Your task to perform on an android device: Search for Italian restaurants on Maps Image 0: 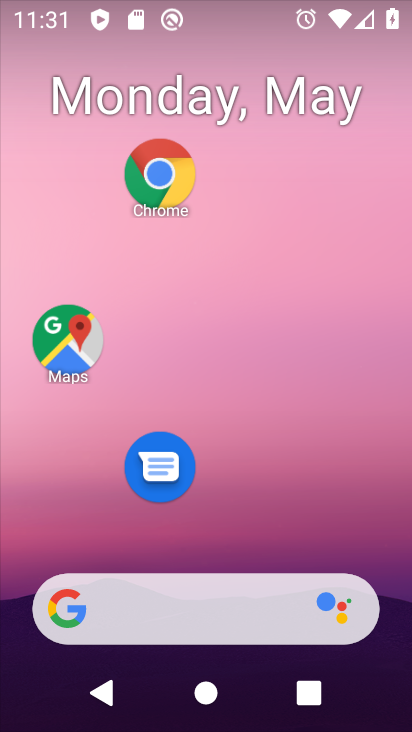
Step 0: click (56, 366)
Your task to perform on an android device: Search for Italian restaurants on Maps Image 1: 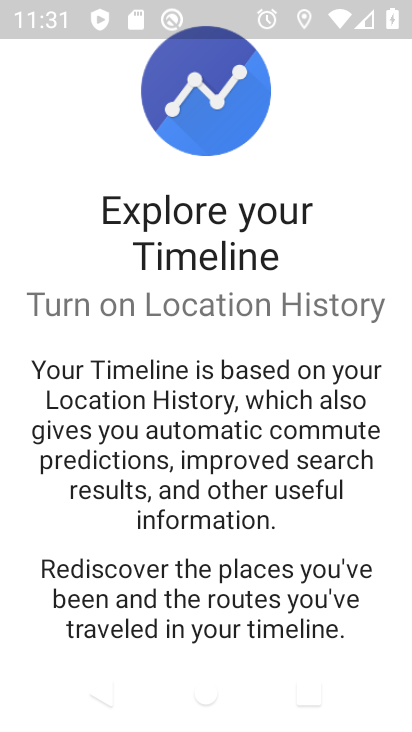
Step 1: press back button
Your task to perform on an android device: Search for Italian restaurants on Maps Image 2: 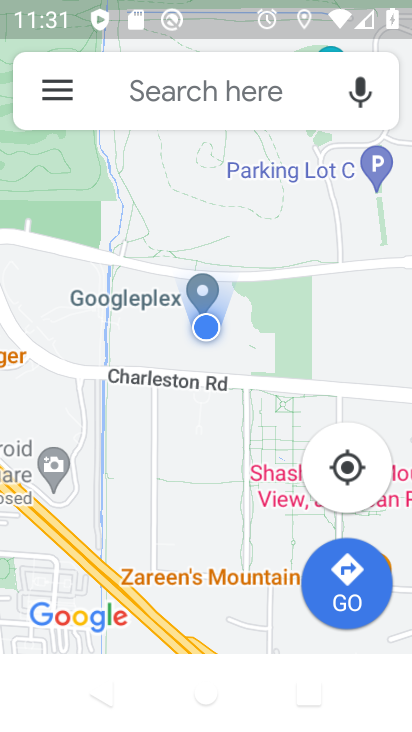
Step 2: click (262, 97)
Your task to perform on an android device: Search for Italian restaurants on Maps Image 3: 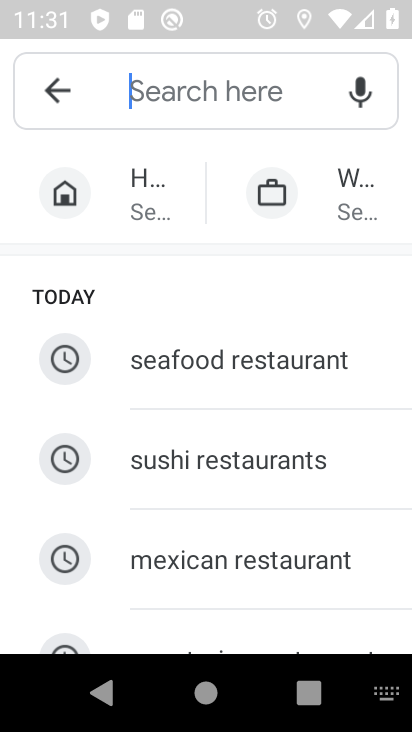
Step 3: drag from (218, 585) to (193, 437)
Your task to perform on an android device: Search for Italian restaurants on Maps Image 4: 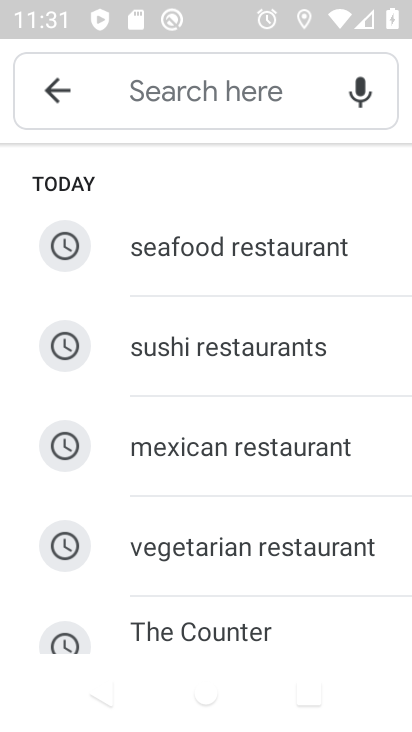
Step 4: drag from (194, 578) to (196, 297)
Your task to perform on an android device: Search for Italian restaurants on Maps Image 5: 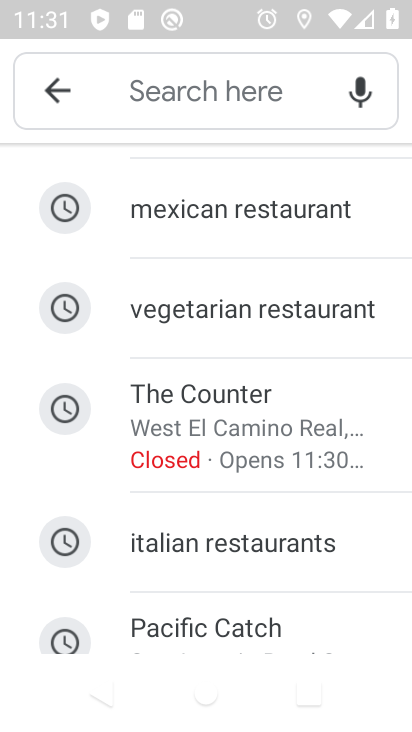
Step 5: click (219, 545)
Your task to perform on an android device: Search for Italian restaurants on Maps Image 6: 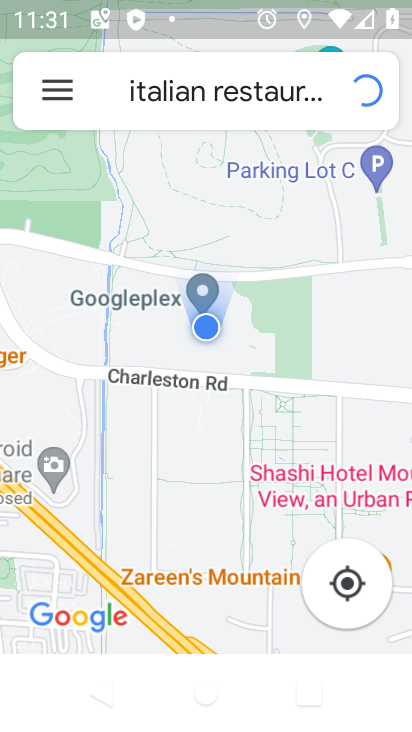
Step 6: task complete